Your task to perform on an android device: Open notification settings Image 0: 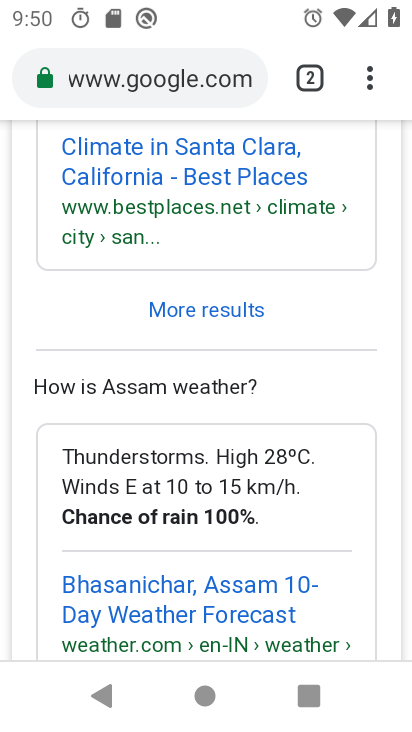
Step 0: press home button
Your task to perform on an android device: Open notification settings Image 1: 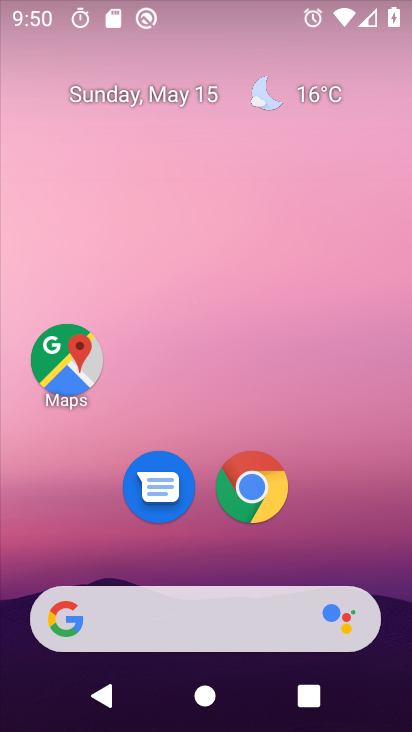
Step 1: drag from (391, 505) to (359, 130)
Your task to perform on an android device: Open notification settings Image 2: 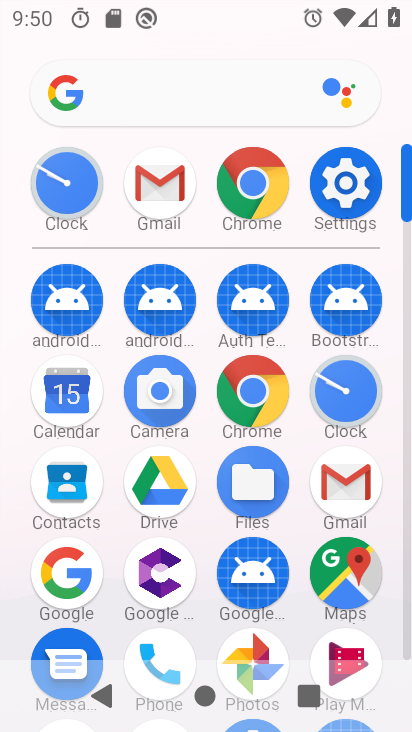
Step 2: click (360, 196)
Your task to perform on an android device: Open notification settings Image 3: 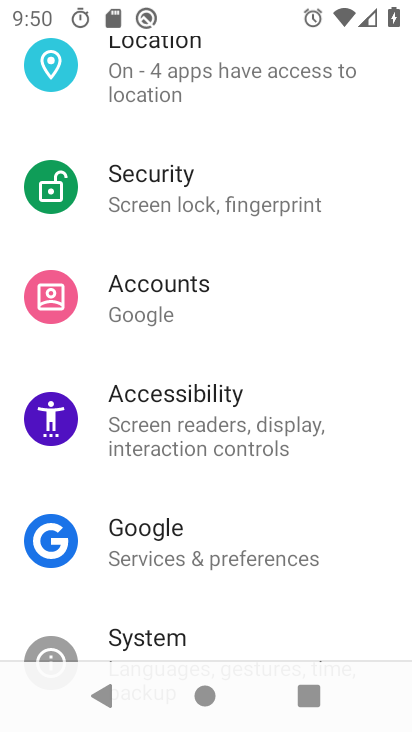
Step 3: drag from (279, 245) to (289, 523)
Your task to perform on an android device: Open notification settings Image 4: 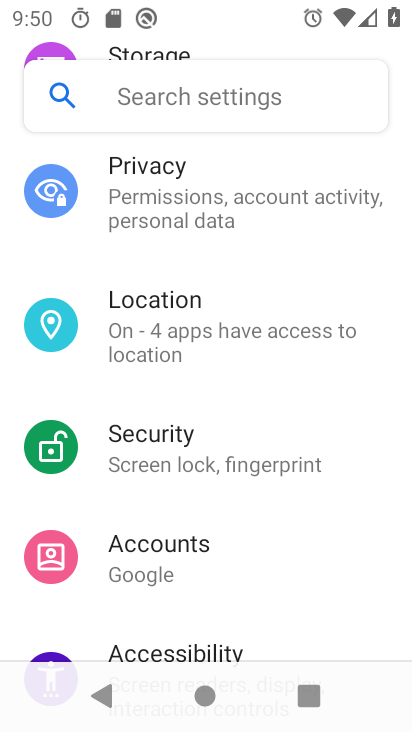
Step 4: drag from (254, 568) to (252, 620)
Your task to perform on an android device: Open notification settings Image 5: 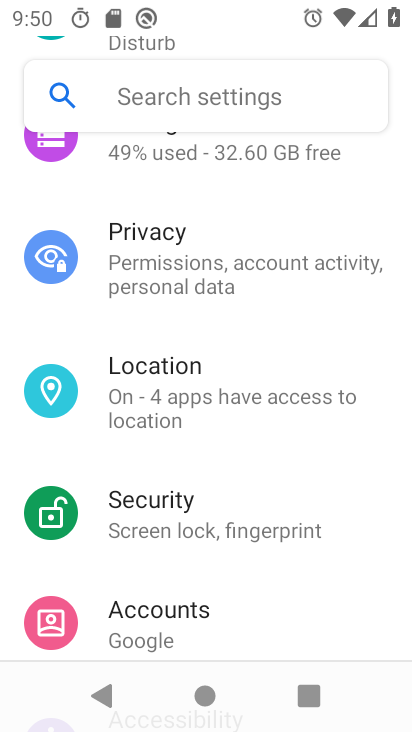
Step 5: drag from (248, 267) to (270, 548)
Your task to perform on an android device: Open notification settings Image 6: 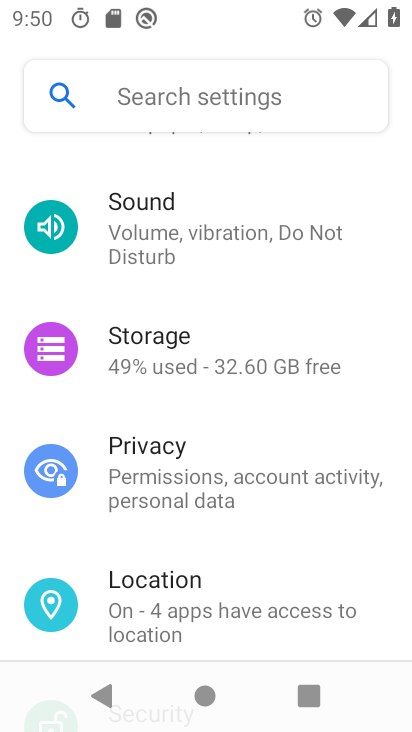
Step 6: drag from (229, 256) to (278, 528)
Your task to perform on an android device: Open notification settings Image 7: 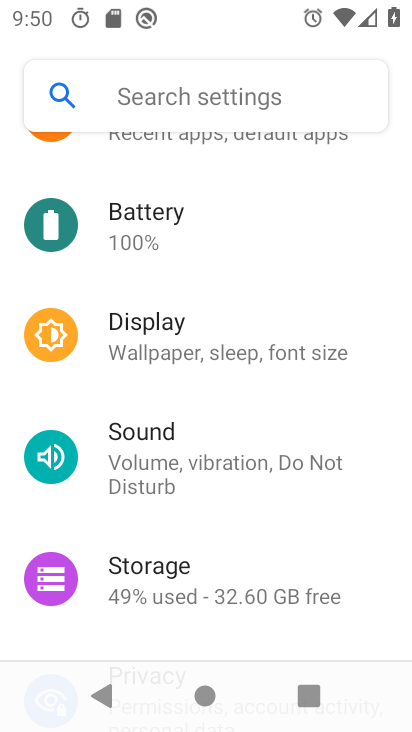
Step 7: drag from (250, 216) to (247, 506)
Your task to perform on an android device: Open notification settings Image 8: 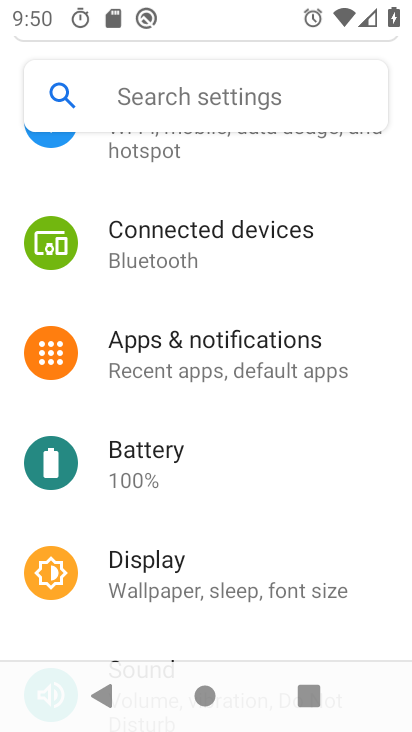
Step 8: click (221, 353)
Your task to perform on an android device: Open notification settings Image 9: 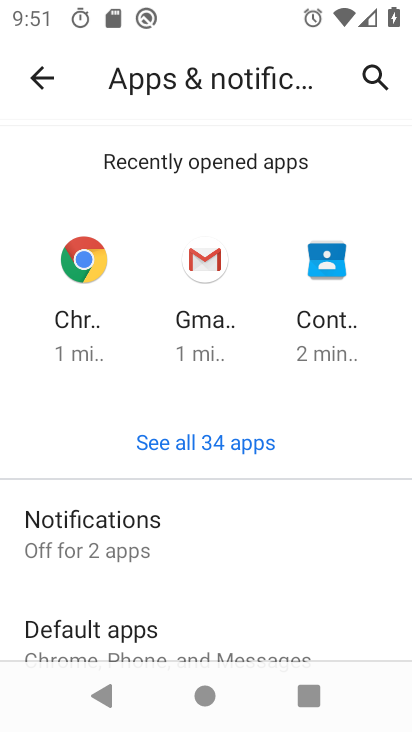
Step 9: click (175, 522)
Your task to perform on an android device: Open notification settings Image 10: 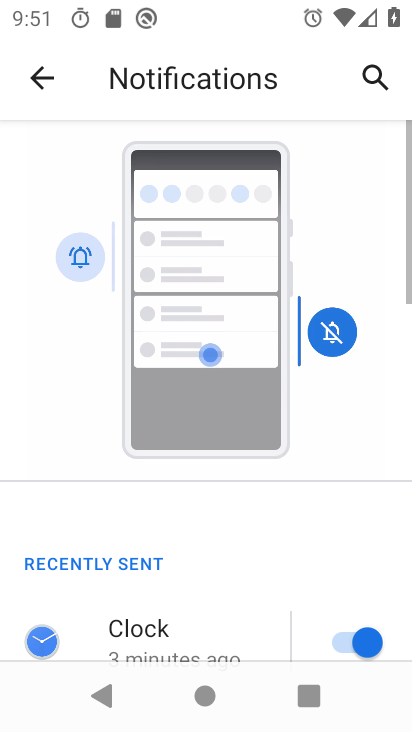
Step 10: task complete